Your task to perform on an android device: turn smart compose on in the gmail app Image 0: 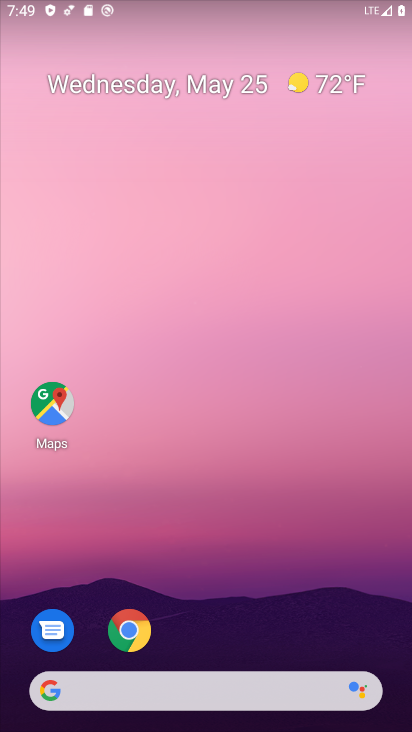
Step 0: drag from (201, 648) to (214, 246)
Your task to perform on an android device: turn smart compose on in the gmail app Image 1: 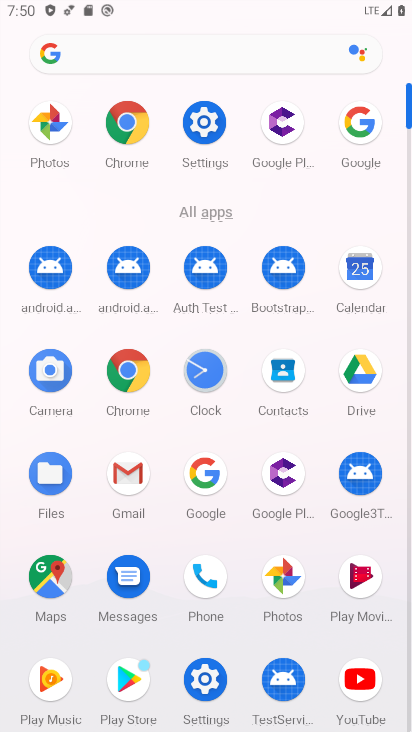
Step 1: click (137, 477)
Your task to perform on an android device: turn smart compose on in the gmail app Image 2: 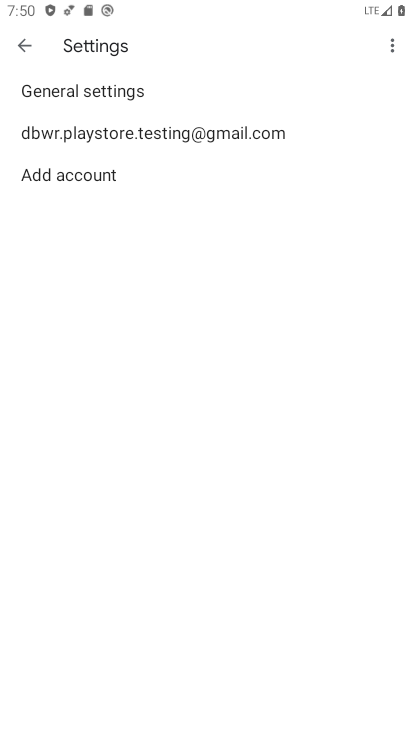
Step 2: click (53, 124)
Your task to perform on an android device: turn smart compose on in the gmail app Image 3: 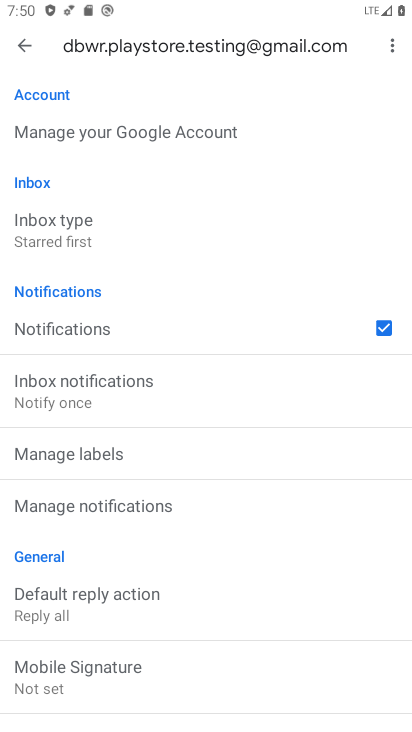
Step 3: task complete